Your task to perform on an android device: Install the Lyft app Image 0: 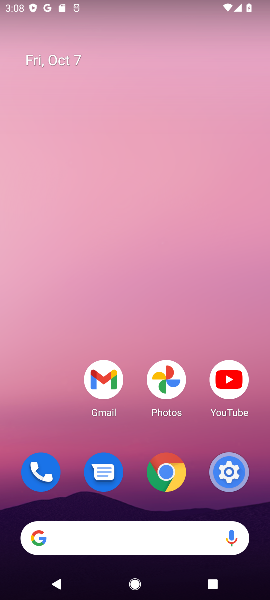
Step 0: drag from (139, 533) to (202, 70)
Your task to perform on an android device: Install the Lyft app Image 1: 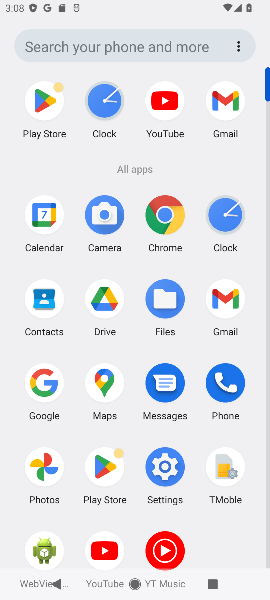
Step 1: click (42, 107)
Your task to perform on an android device: Install the Lyft app Image 2: 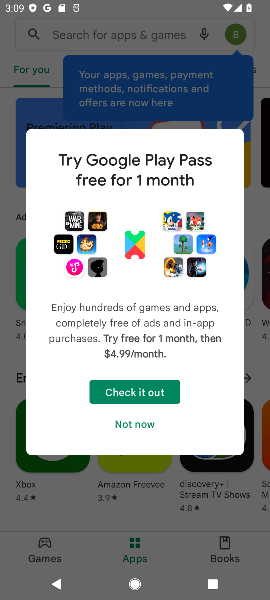
Step 2: click (139, 421)
Your task to perform on an android device: Install the Lyft app Image 3: 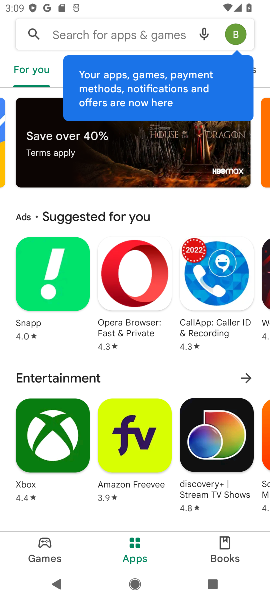
Step 3: click (159, 31)
Your task to perform on an android device: Install the Lyft app Image 4: 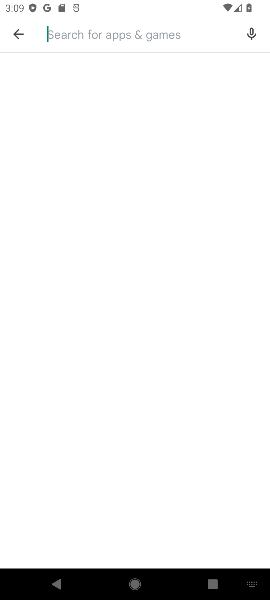
Step 4: type "Lyft"
Your task to perform on an android device: Install the Lyft app Image 5: 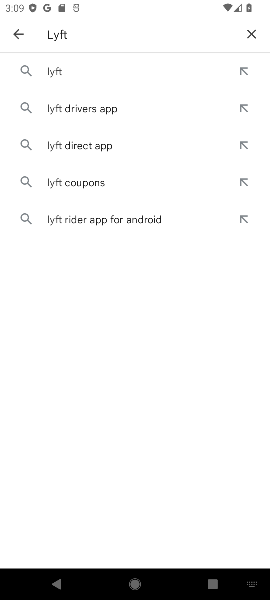
Step 5: click (56, 74)
Your task to perform on an android device: Install the Lyft app Image 6: 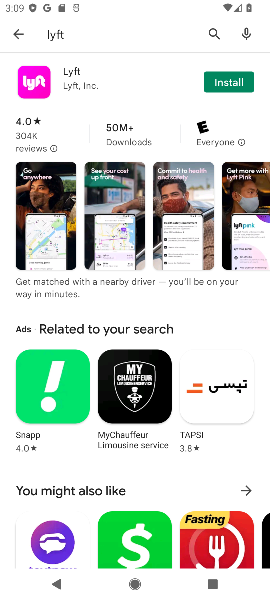
Step 6: click (242, 87)
Your task to perform on an android device: Install the Lyft app Image 7: 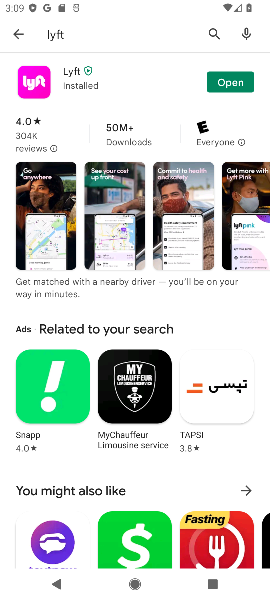
Step 7: task complete